Your task to perform on an android device: Go to eBay Image 0: 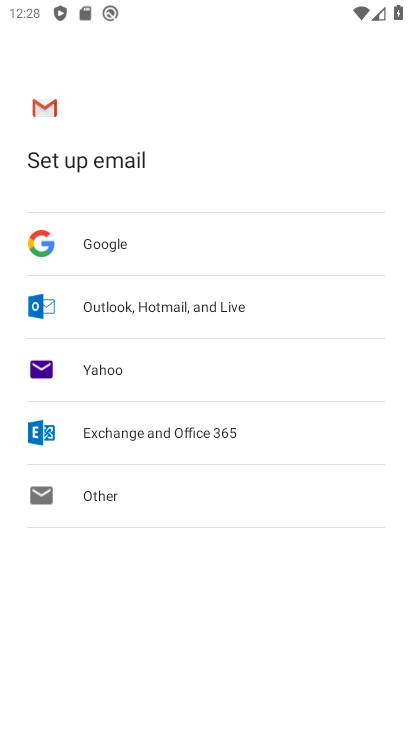
Step 0: press home button
Your task to perform on an android device: Go to eBay Image 1: 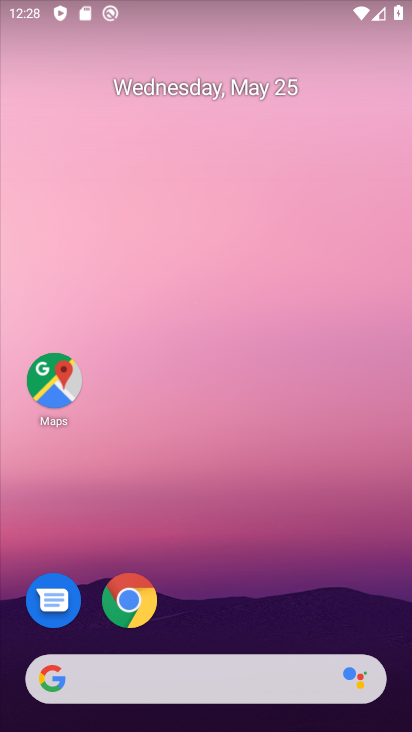
Step 1: click (138, 595)
Your task to perform on an android device: Go to eBay Image 2: 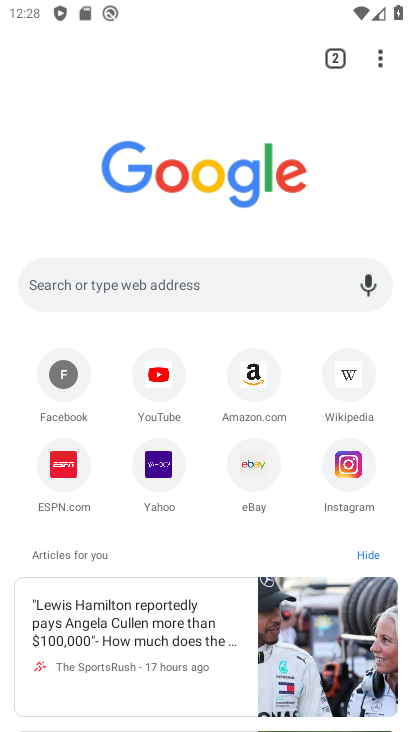
Step 2: click (255, 483)
Your task to perform on an android device: Go to eBay Image 3: 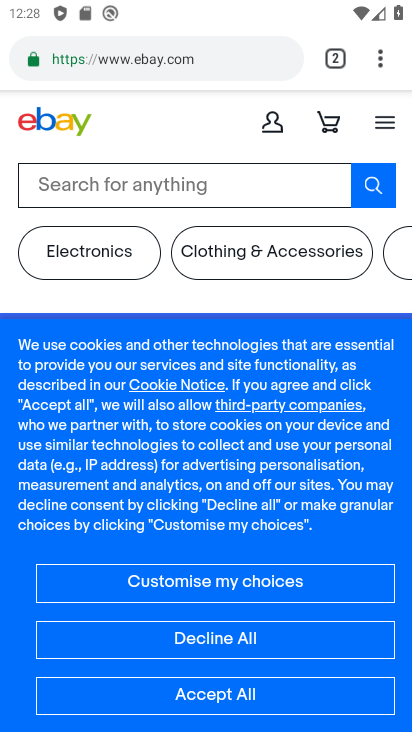
Step 3: task complete